Your task to perform on an android device: turn notification dots off Image 0: 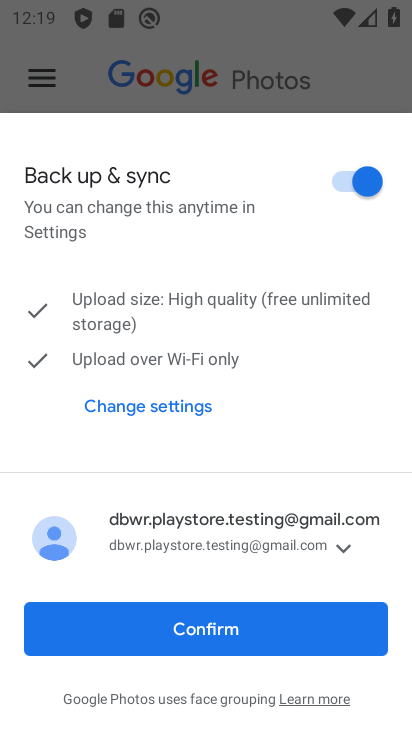
Step 0: press home button
Your task to perform on an android device: turn notification dots off Image 1: 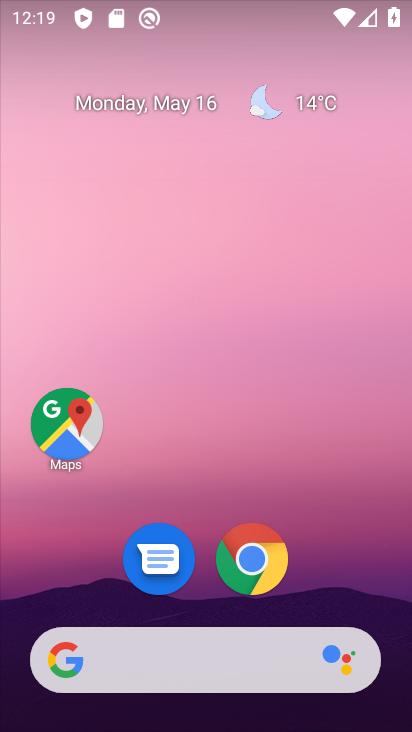
Step 1: drag from (331, 462) to (290, 0)
Your task to perform on an android device: turn notification dots off Image 2: 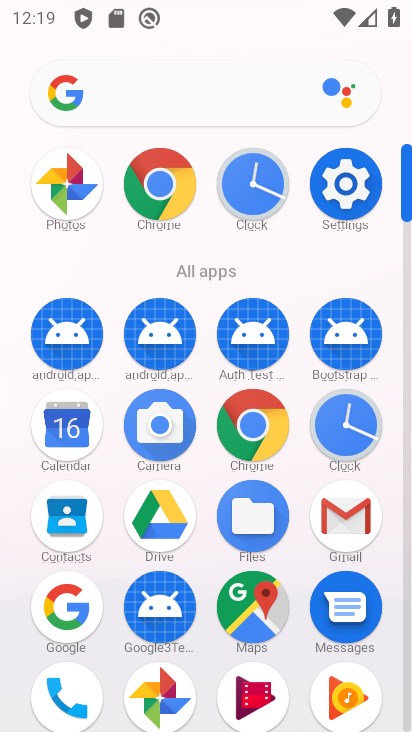
Step 2: click (358, 167)
Your task to perform on an android device: turn notification dots off Image 3: 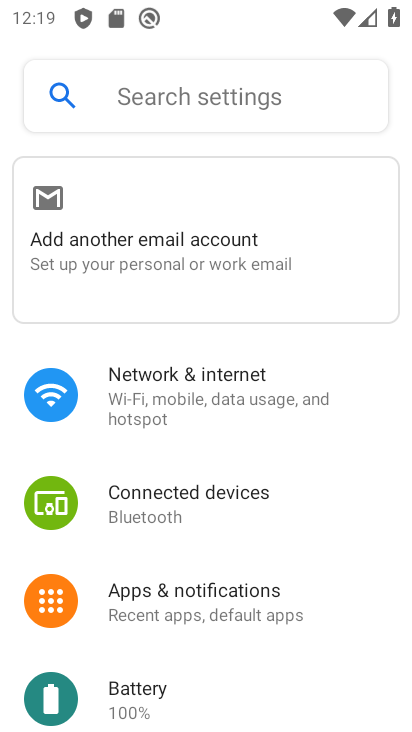
Step 3: drag from (277, 609) to (280, 267)
Your task to perform on an android device: turn notification dots off Image 4: 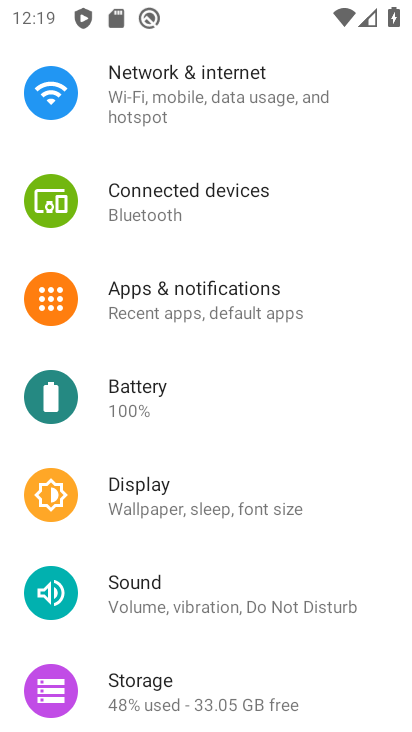
Step 4: click (274, 285)
Your task to perform on an android device: turn notification dots off Image 5: 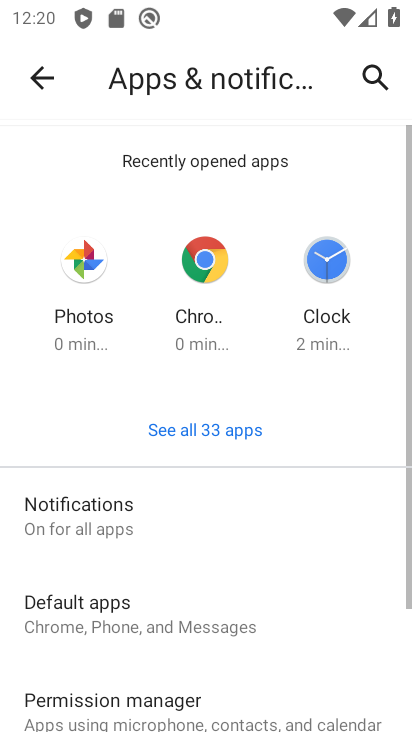
Step 5: click (120, 517)
Your task to perform on an android device: turn notification dots off Image 6: 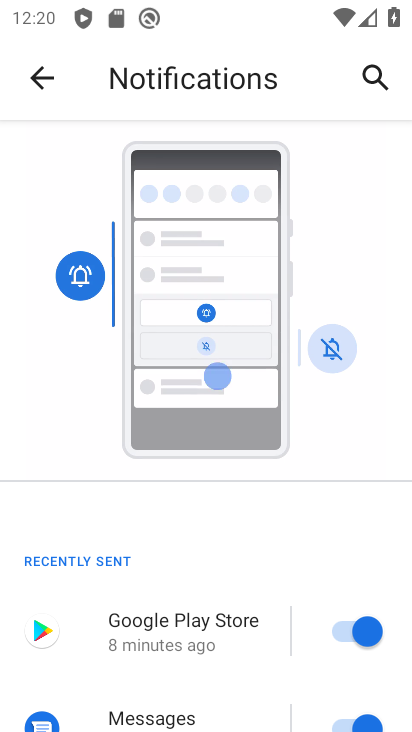
Step 6: drag from (161, 622) to (83, 186)
Your task to perform on an android device: turn notification dots off Image 7: 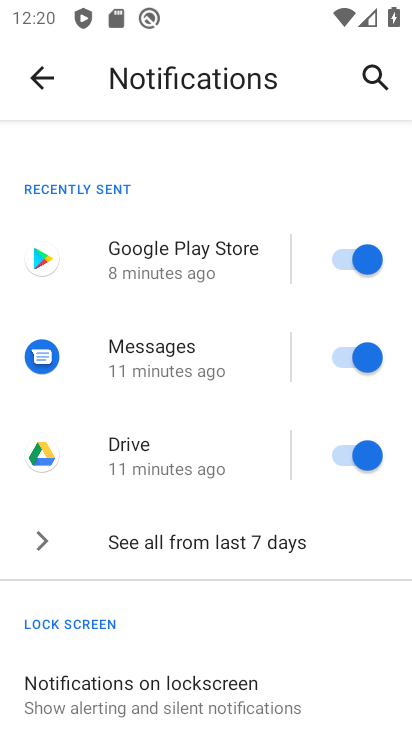
Step 7: drag from (195, 621) to (125, 219)
Your task to perform on an android device: turn notification dots off Image 8: 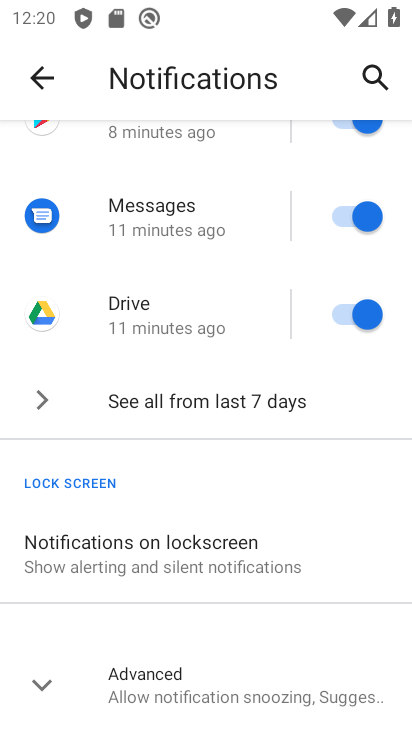
Step 8: drag from (131, 556) to (70, 162)
Your task to perform on an android device: turn notification dots off Image 9: 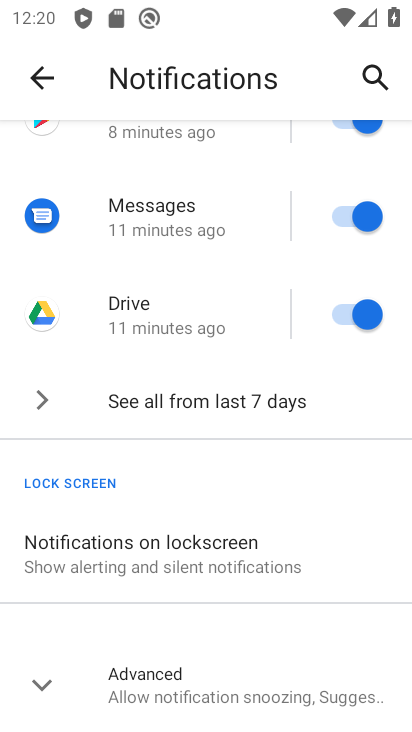
Step 9: click (190, 718)
Your task to perform on an android device: turn notification dots off Image 10: 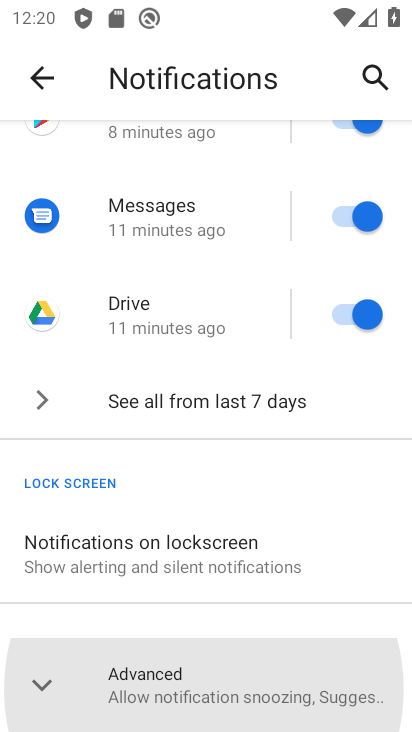
Step 10: click (193, 699)
Your task to perform on an android device: turn notification dots off Image 11: 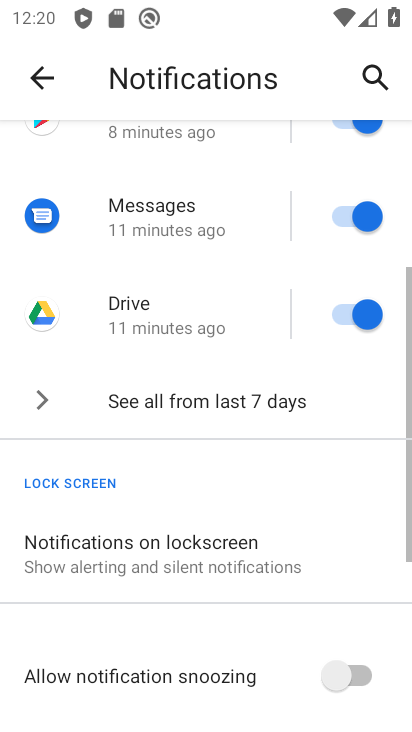
Step 11: drag from (197, 690) to (226, 289)
Your task to perform on an android device: turn notification dots off Image 12: 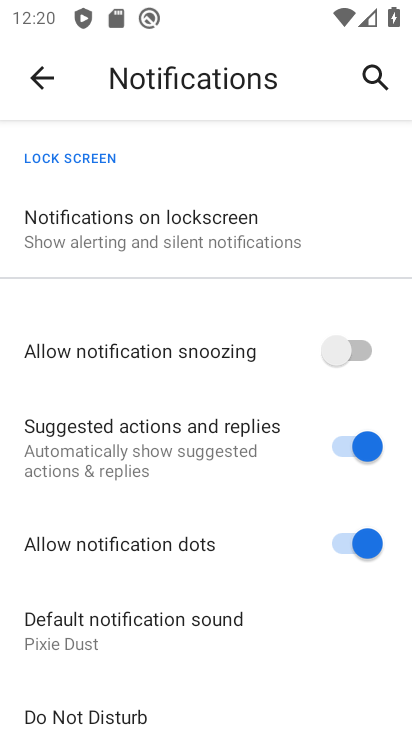
Step 12: click (343, 540)
Your task to perform on an android device: turn notification dots off Image 13: 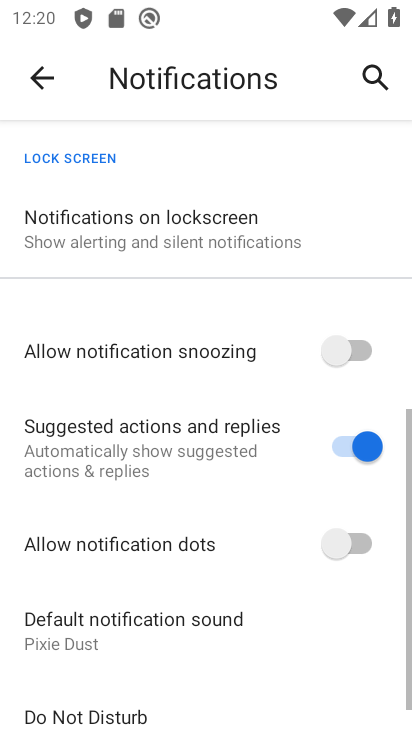
Step 13: task complete